Your task to perform on an android device: Open sound settings Image 0: 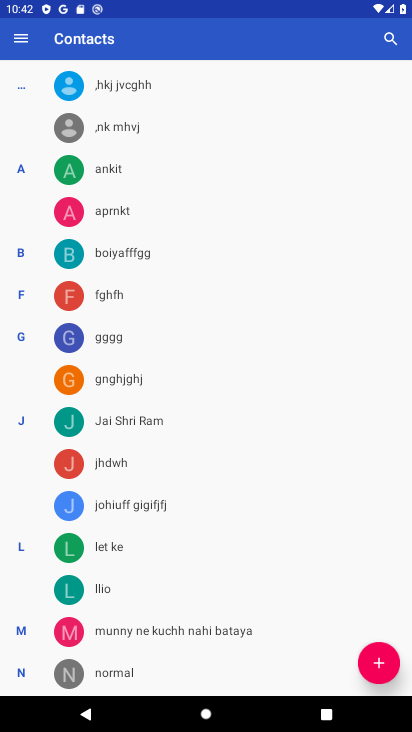
Step 0: press home button
Your task to perform on an android device: Open sound settings Image 1: 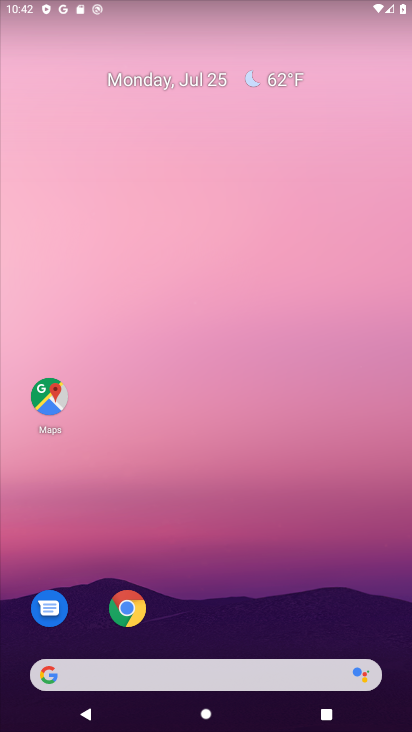
Step 1: drag from (289, 626) to (228, 259)
Your task to perform on an android device: Open sound settings Image 2: 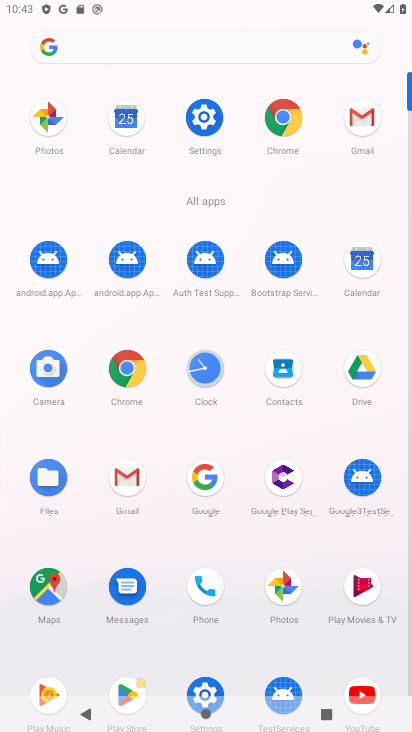
Step 2: click (210, 688)
Your task to perform on an android device: Open sound settings Image 3: 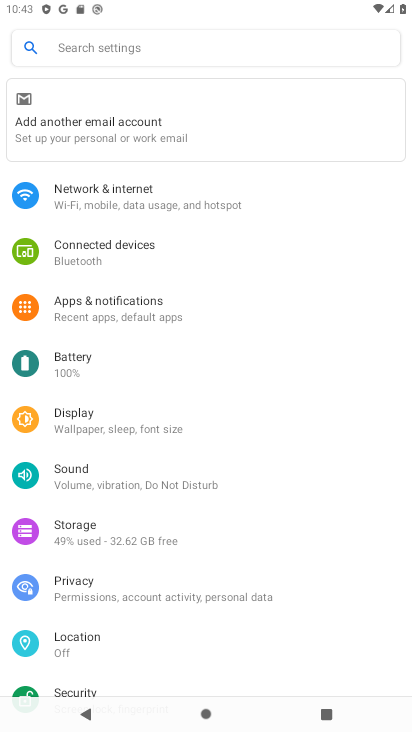
Step 3: click (81, 466)
Your task to perform on an android device: Open sound settings Image 4: 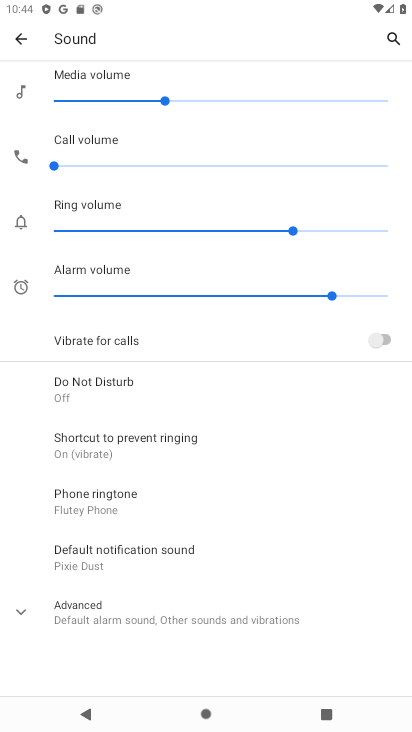
Step 4: task complete